Your task to perform on an android device: see sites visited before in the chrome app Image 0: 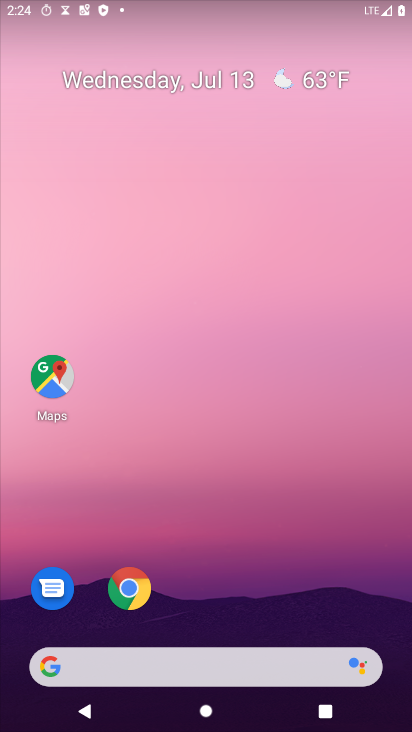
Step 0: click (131, 586)
Your task to perform on an android device: see sites visited before in the chrome app Image 1: 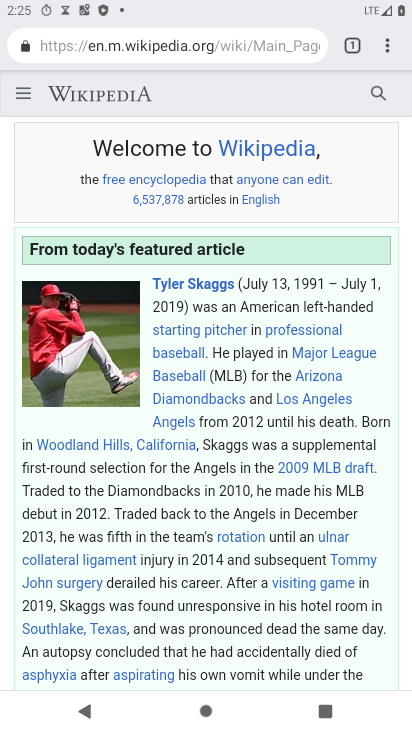
Step 1: task complete